Your task to perform on an android device: toggle priority inbox in the gmail app Image 0: 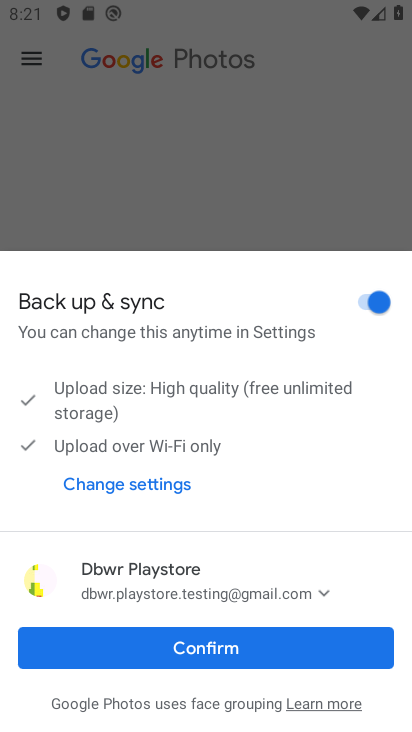
Step 0: press home button
Your task to perform on an android device: toggle priority inbox in the gmail app Image 1: 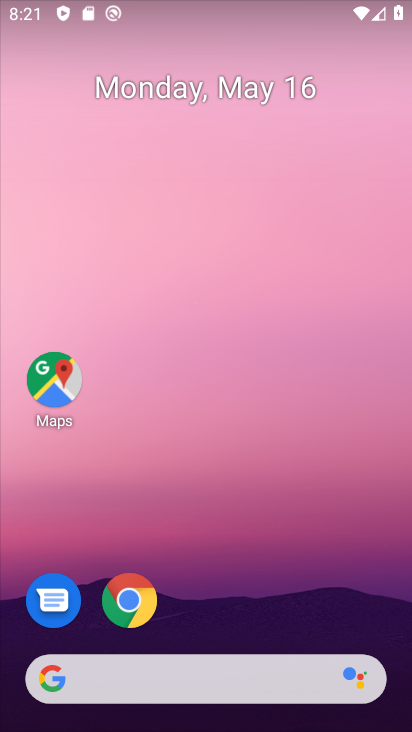
Step 1: drag from (246, 367) to (268, 121)
Your task to perform on an android device: toggle priority inbox in the gmail app Image 2: 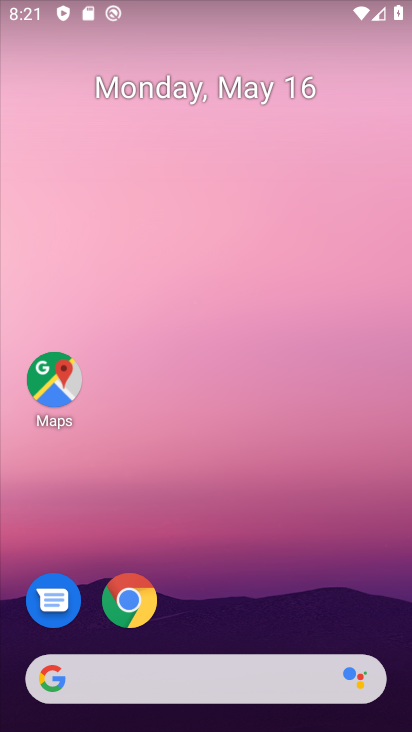
Step 2: drag from (271, 529) to (337, 14)
Your task to perform on an android device: toggle priority inbox in the gmail app Image 3: 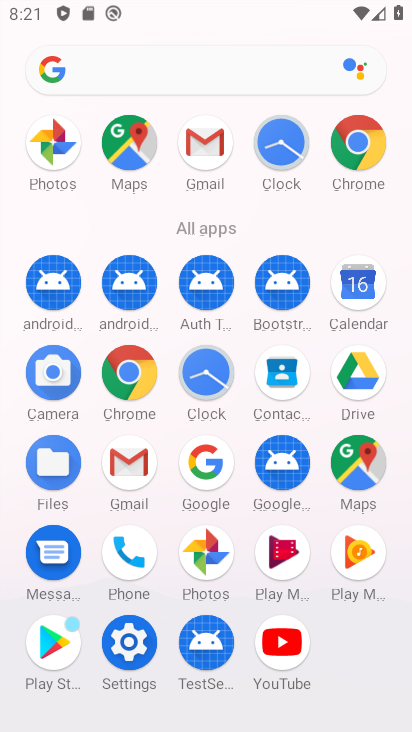
Step 3: click (196, 144)
Your task to perform on an android device: toggle priority inbox in the gmail app Image 4: 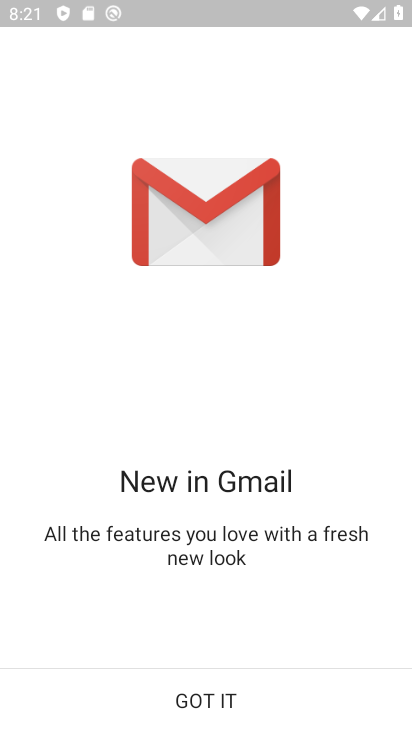
Step 4: click (208, 704)
Your task to perform on an android device: toggle priority inbox in the gmail app Image 5: 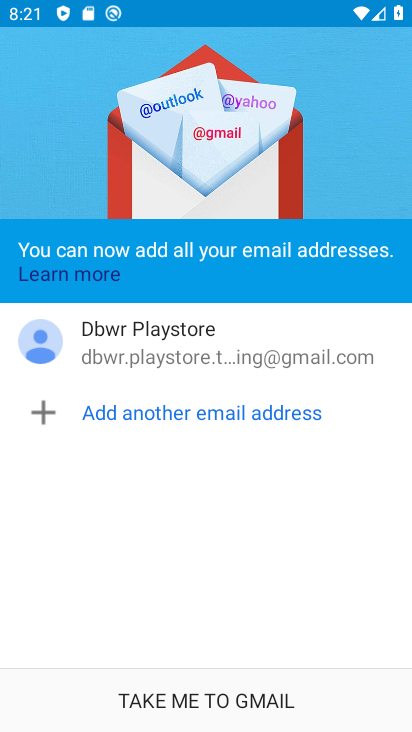
Step 5: click (213, 703)
Your task to perform on an android device: toggle priority inbox in the gmail app Image 6: 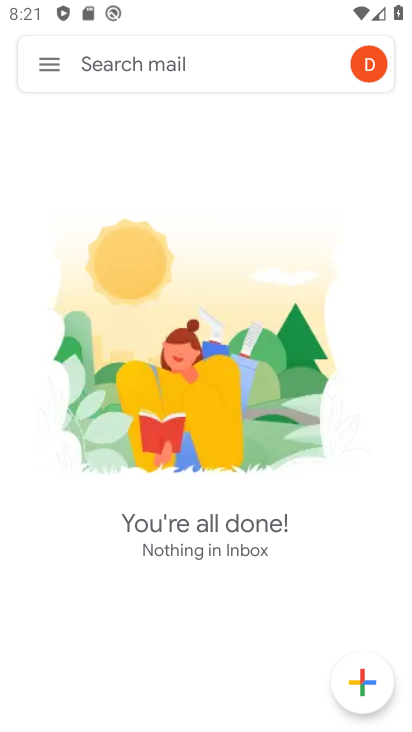
Step 6: click (65, 71)
Your task to perform on an android device: toggle priority inbox in the gmail app Image 7: 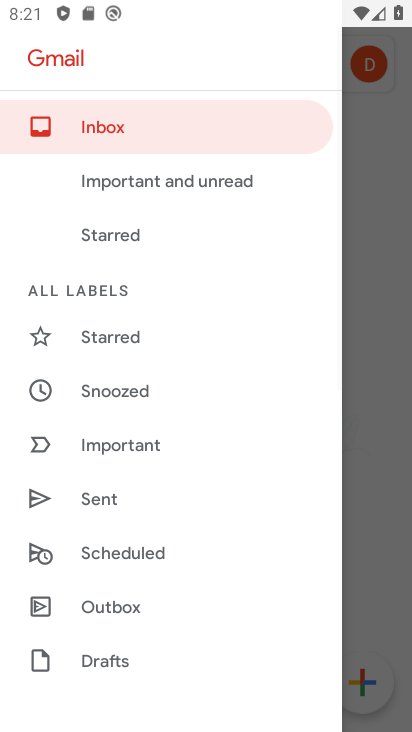
Step 7: drag from (124, 618) to (243, 240)
Your task to perform on an android device: toggle priority inbox in the gmail app Image 8: 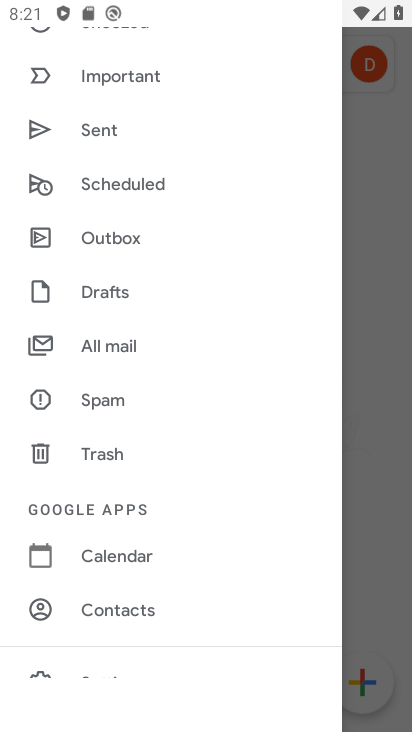
Step 8: drag from (103, 620) to (198, 217)
Your task to perform on an android device: toggle priority inbox in the gmail app Image 9: 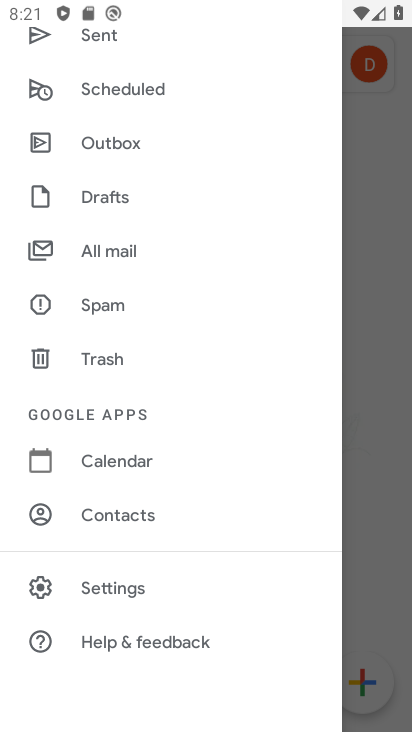
Step 9: click (85, 596)
Your task to perform on an android device: toggle priority inbox in the gmail app Image 10: 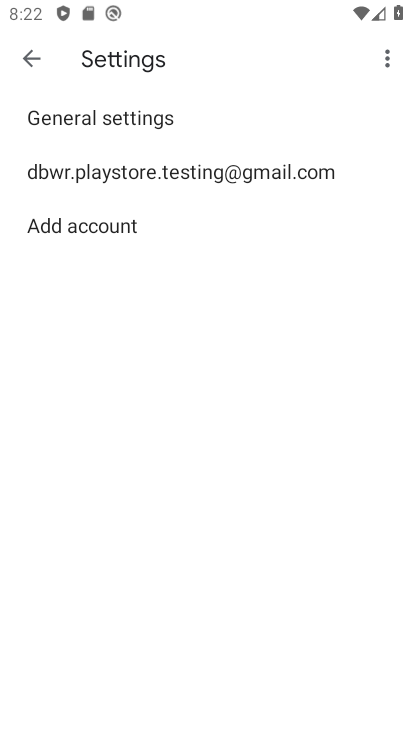
Step 10: click (88, 177)
Your task to perform on an android device: toggle priority inbox in the gmail app Image 11: 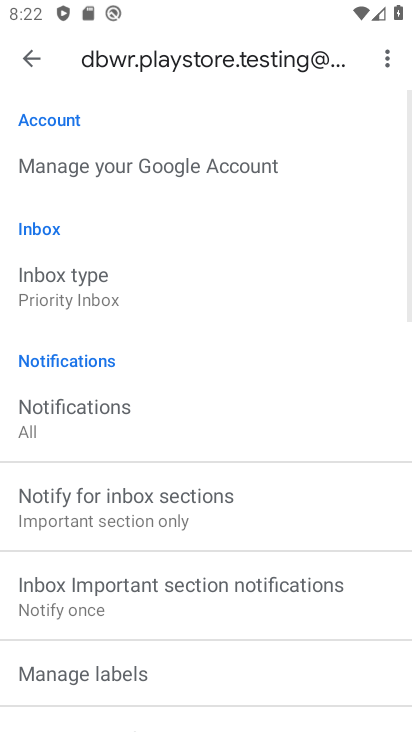
Step 11: click (68, 285)
Your task to perform on an android device: toggle priority inbox in the gmail app Image 12: 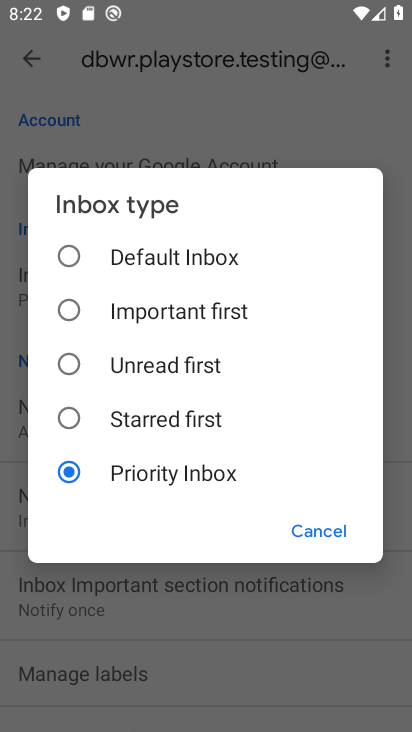
Step 12: click (66, 252)
Your task to perform on an android device: toggle priority inbox in the gmail app Image 13: 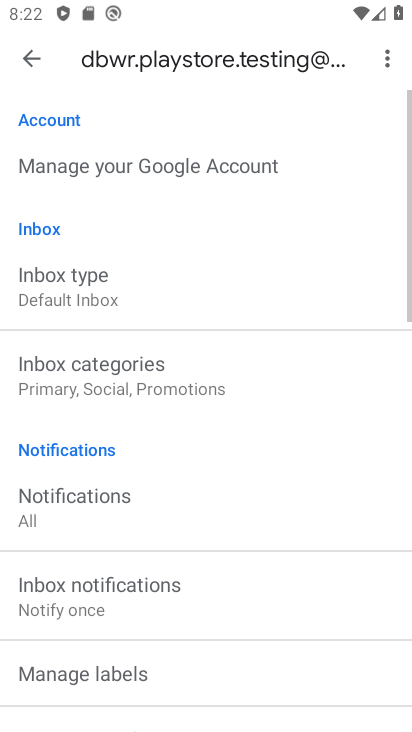
Step 13: task complete